Your task to perform on an android device: Go to location settings Image 0: 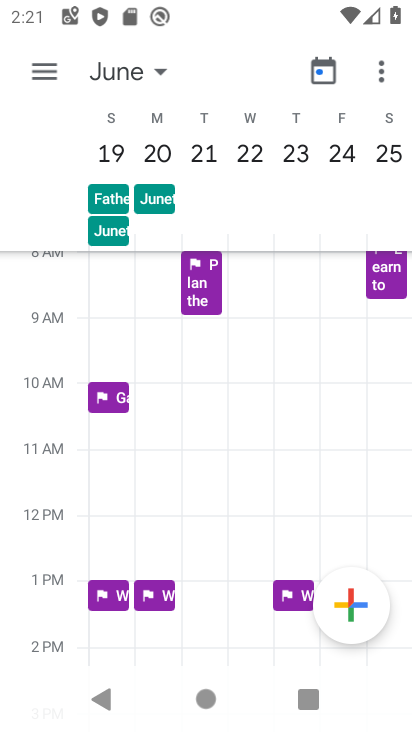
Step 0: press home button
Your task to perform on an android device: Go to location settings Image 1: 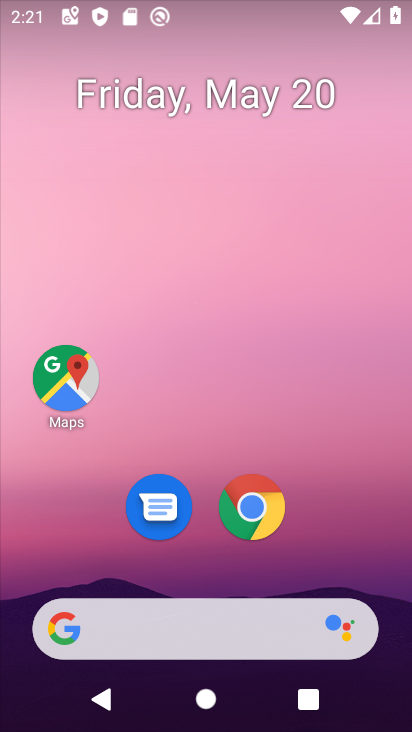
Step 1: drag from (247, 680) to (256, 40)
Your task to perform on an android device: Go to location settings Image 2: 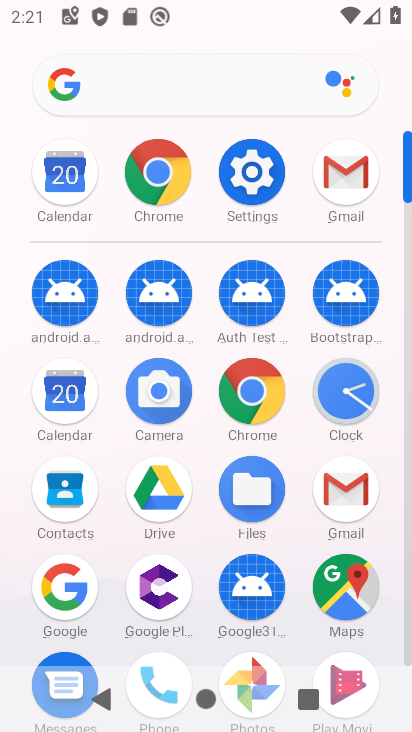
Step 2: click (262, 172)
Your task to perform on an android device: Go to location settings Image 3: 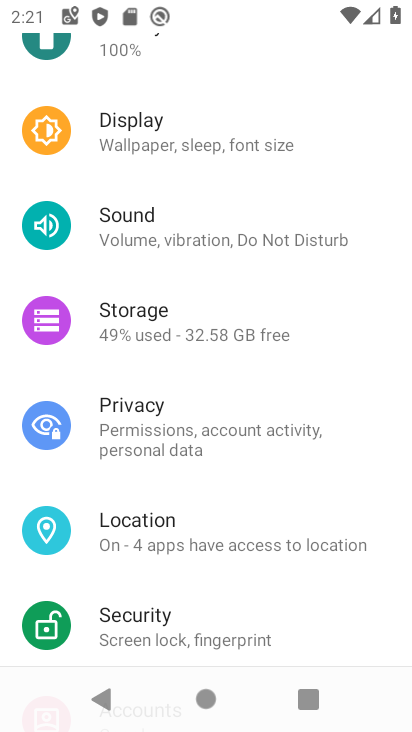
Step 3: click (165, 544)
Your task to perform on an android device: Go to location settings Image 4: 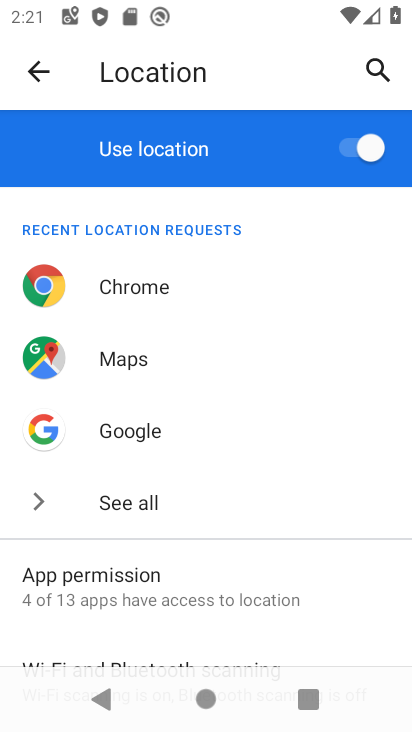
Step 4: task complete